Your task to perform on an android device: turn off airplane mode Image 0: 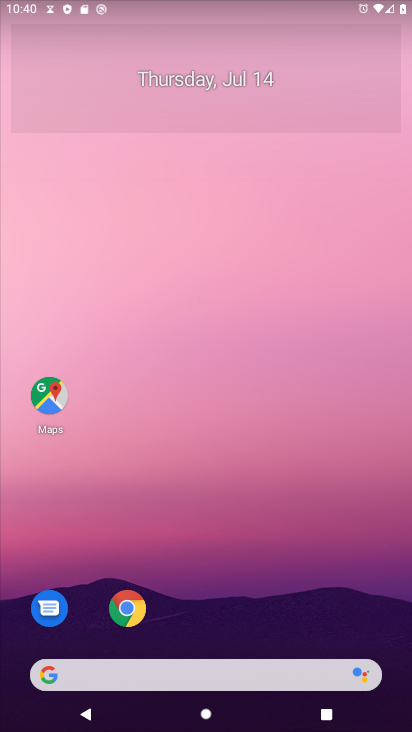
Step 0: drag from (206, 595) to (397, 14)
Your task to perform on an android device: turn off airplane mode Image 1: 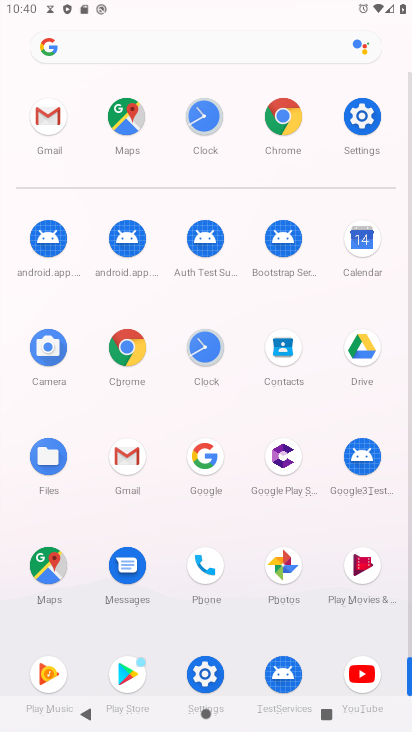
Step 1: click (377, 190)
Your task to perform on an android device: turn off airplane mode Image 2: 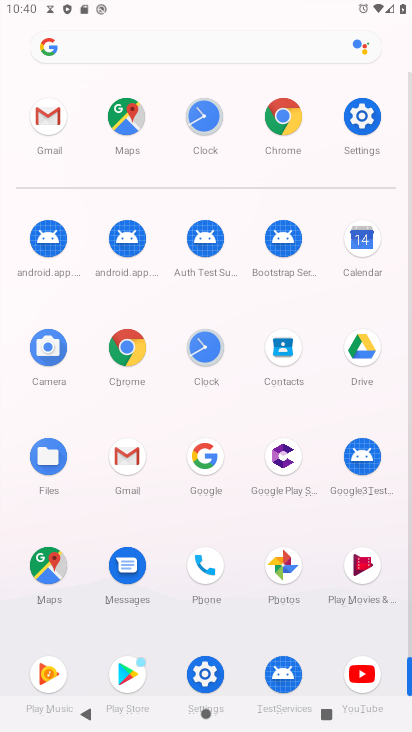
Step 2: click (363, 124)
Your task to perform on an android device: turn off airplane mode Image 3: 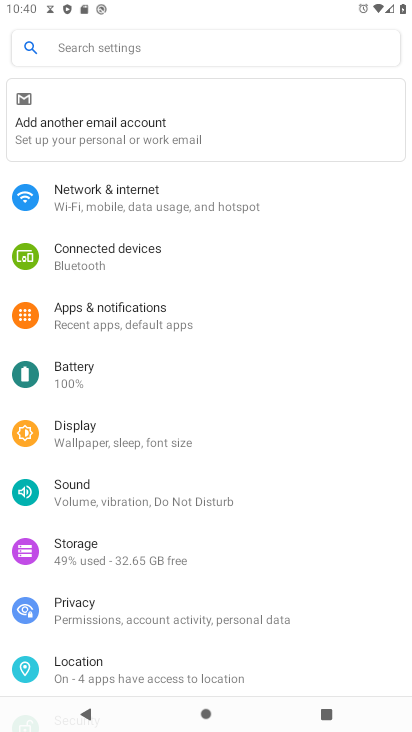
Step 3: click (148, 211)
Your task to perform on an android device: turn off airplane mode Image 4: 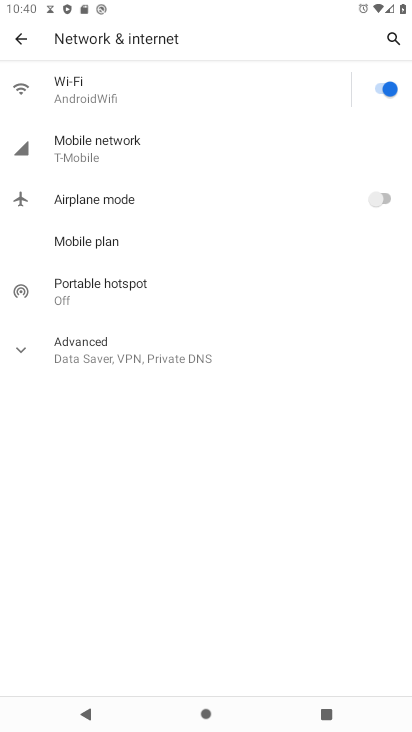
Step 4: task complete